Your task to perform on an android device: toggle show notifications on the lock screen Image 0: 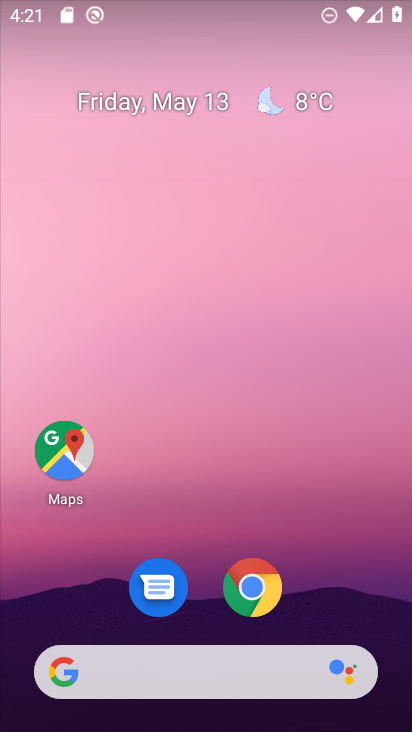
Step 0: drag from (220, 565) to (248, 165)
Your task to perform on an android device: toggle show notifications on the lock screen Image 1: 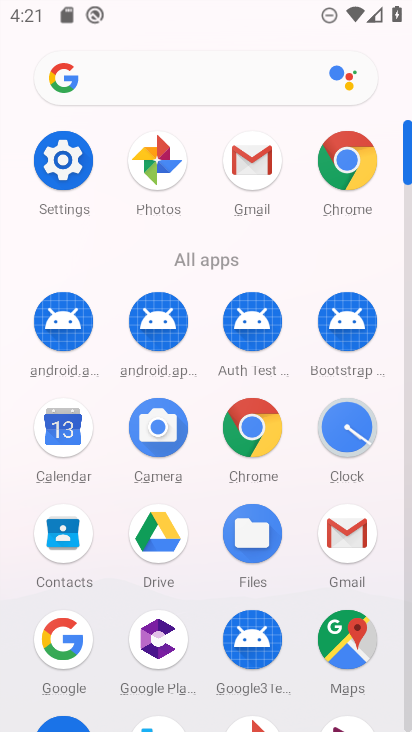
Step 1: click (56, 167)
Your task to perform on an android device: toggle show notifications on the lock screen Image 2: 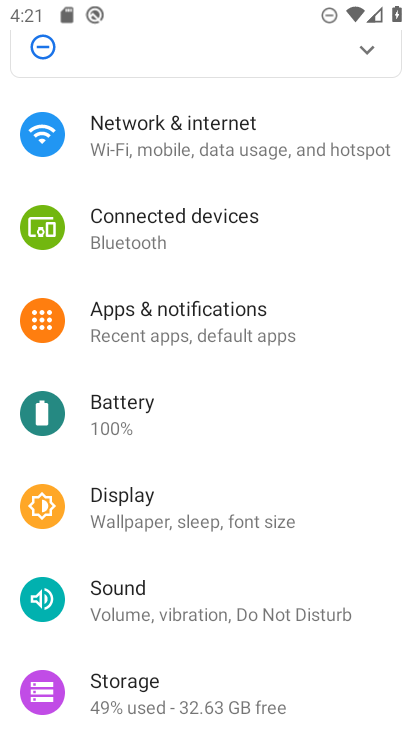
Step 2: click (168, 316)
Your task to perform on an android device: toggle show notifications on the lock screen Image 3: 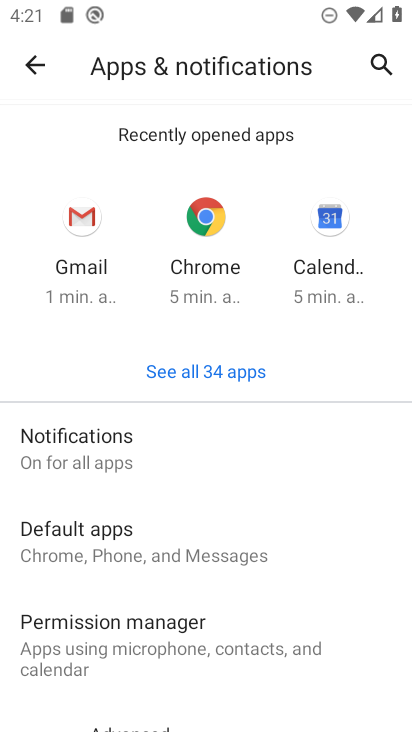
Step 3: drag from (200, 615) to (214, 500)
Your task to perform on an android device: toggle show notifications on the lock screen Image 4: 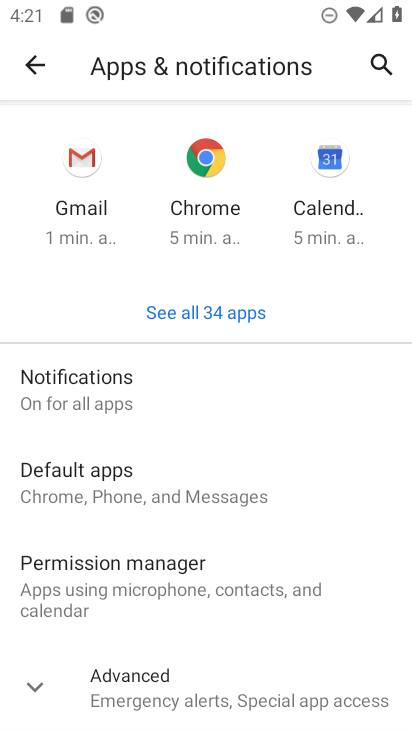
Step 4: click (125, 391)
Your task to perform on an android device: toggle show notifications on the lock screen Image 5: 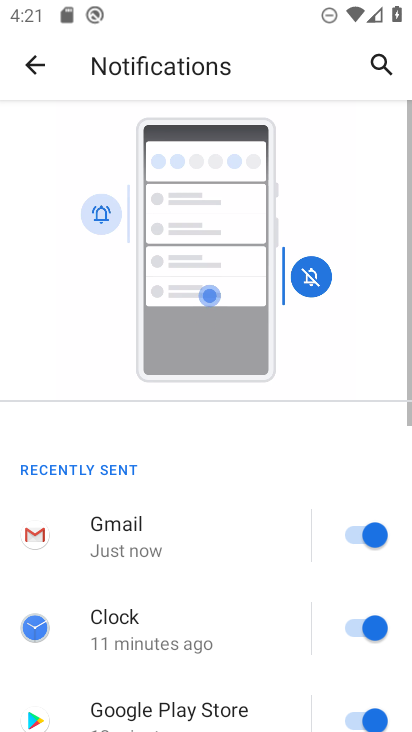
Step 5: drag from (212, 615) to (219, 343)
Your task to perform on an android device: toggle show notifications on the lock screen Image 6: 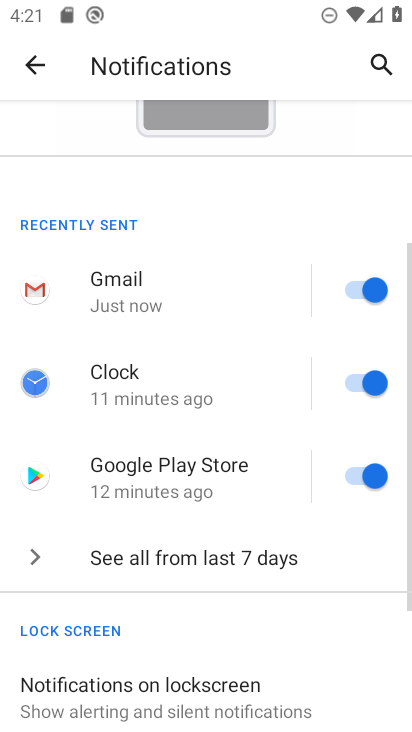
Step 6: drag from (225, 632) to (223, 504)
Your task to perform on an android device: toggle show notifications on the lock screen Image 7: 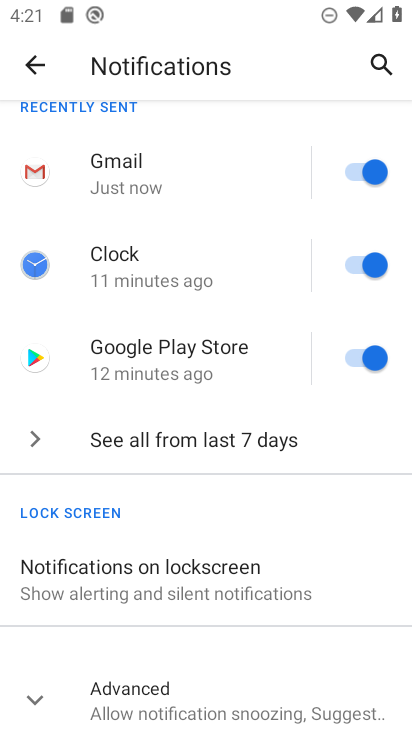
Step 7: click (147, 595)
Your task to perform on an android device: toggle show notifications on the lock screen Image 8: 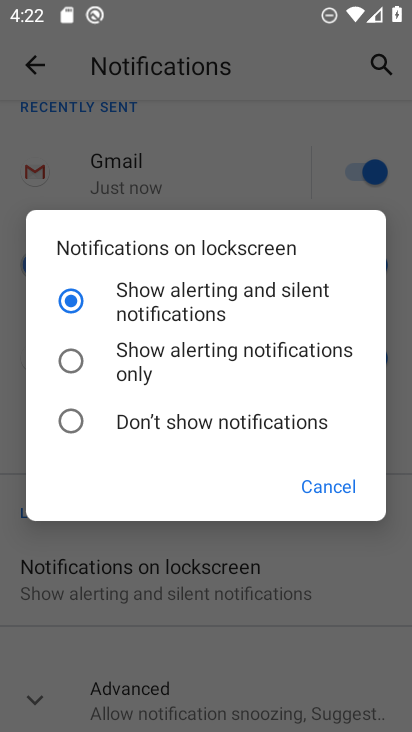
Step 8: click (250, 412)
Your task to perform on an android device: toggle show notifications on the lock screen Image 9: 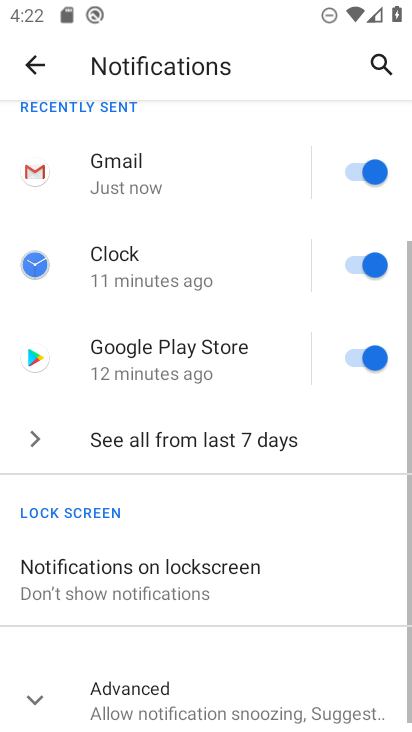
Step 9: task complete